Your task to perform on an android device: Search for sushi restaurants on Maps Image 0: 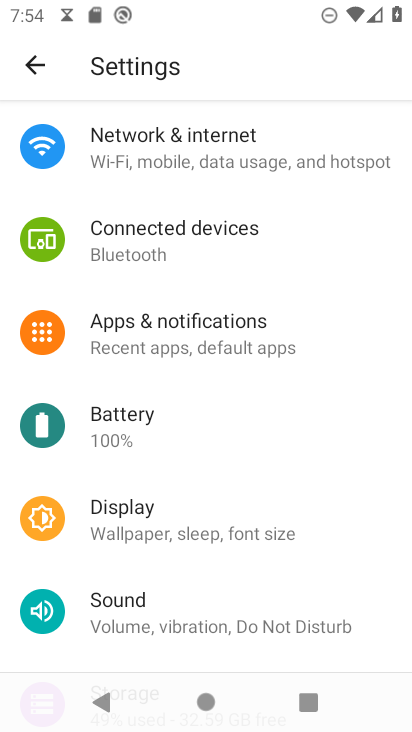
Step 0: press home button
Your task to perform on an android device: Search for sushi restaurants on Maps Image 1: 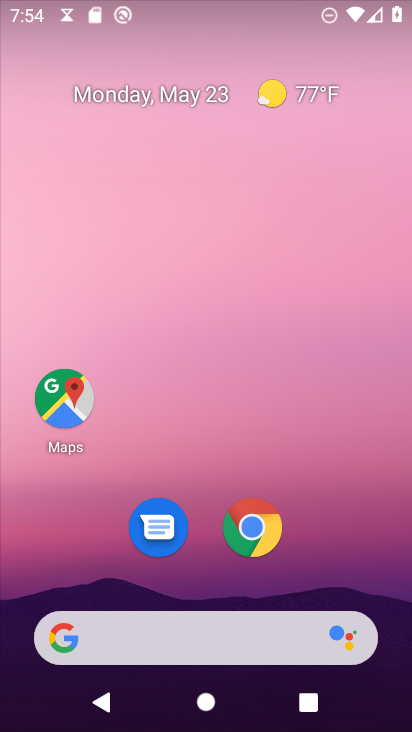
Step 1: drag from (249, 660) to (289, 192)
Your task to perform on an android device: Search for sushi restaurants on Maps Image 2: 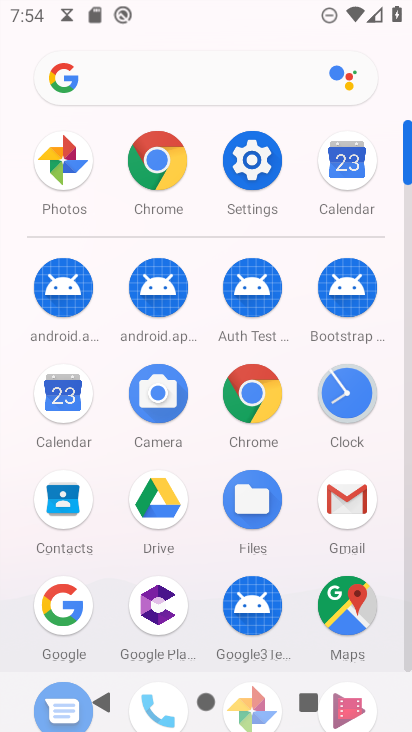
Step 2: click (346, 601)
Your task to perform on an android device: Search for sushi restaurants on Maps Image 3: 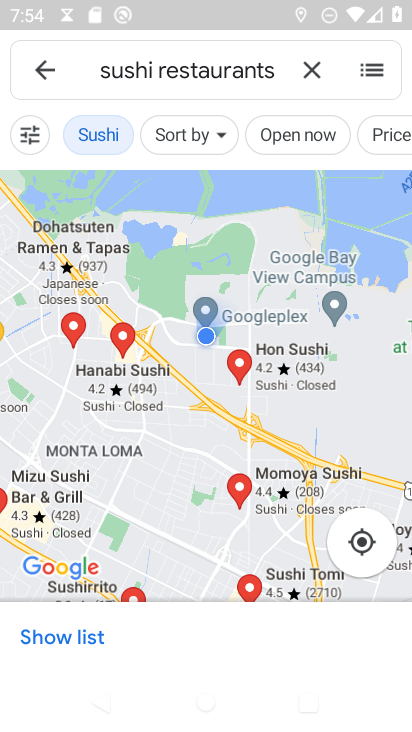
Step 3: task complete